Your task to perform on an android device: change your default location settings in chrome Image 0: 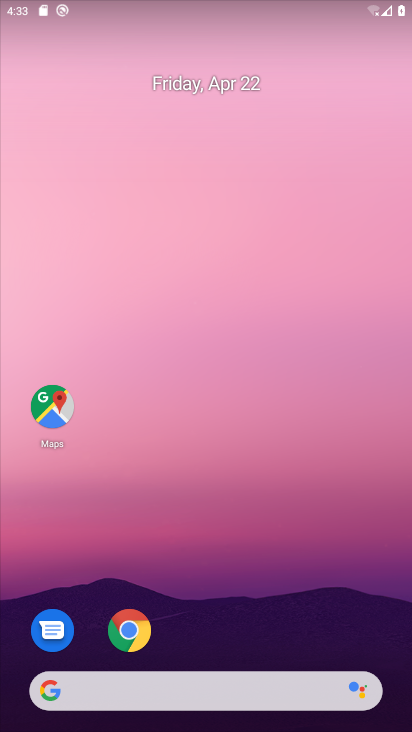
Step 0: click (133, 633)
Your task to perform on an android device: change your default location settings in chrome Image 1: 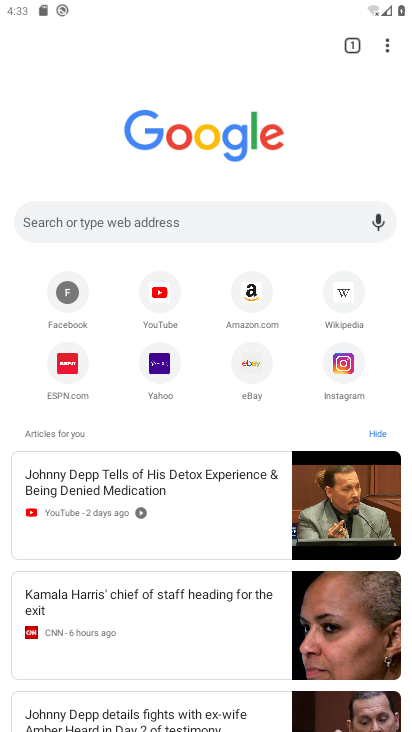
Step 1: click (389, 45)
Your task to perform on an android device: change your default location settings in chrome Image 2: 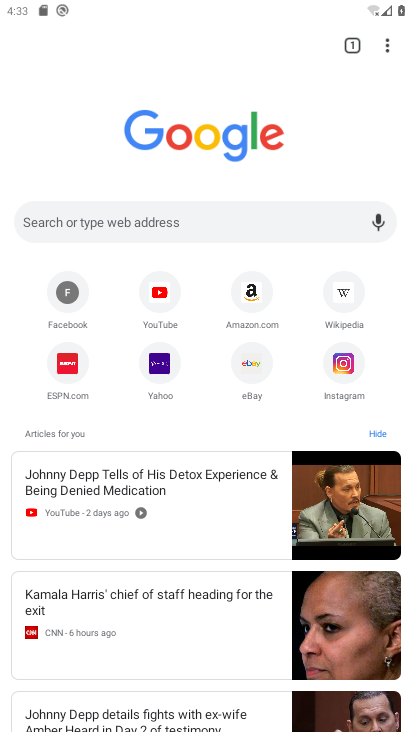
Step 2: click (389, 45)
Your task to perform on an android device: change your default location settings in chrome Image 3: 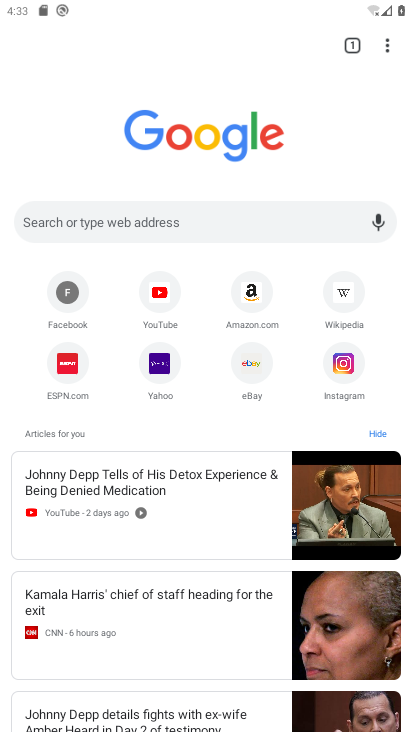
Step 3: click (388, 45)
Your task to perform on an android device: change your default location settings in chrome Image 4: 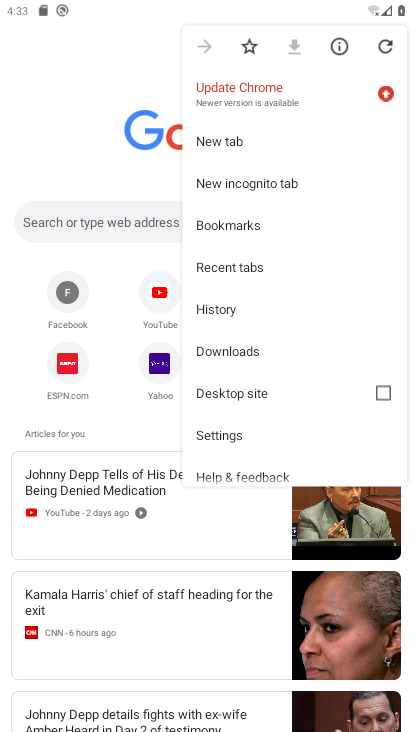
Step 4: click (226, 427)
Your task to perform on an android device: change your default location settings in chrome Image 5: 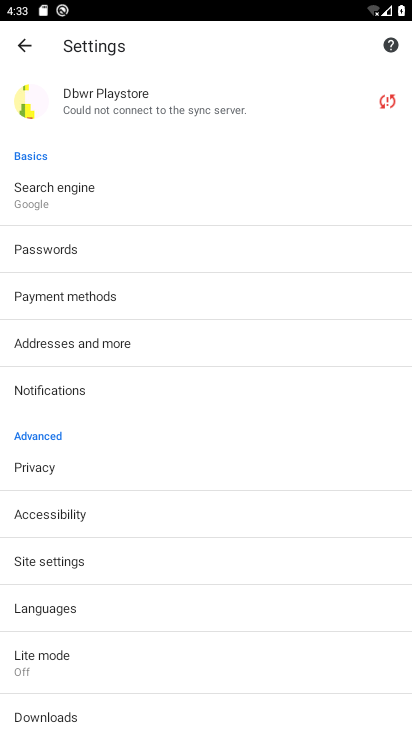
Step 5: click (89, 560)
Your task to perform on an android device: change your default location settings in chrome Image 6: 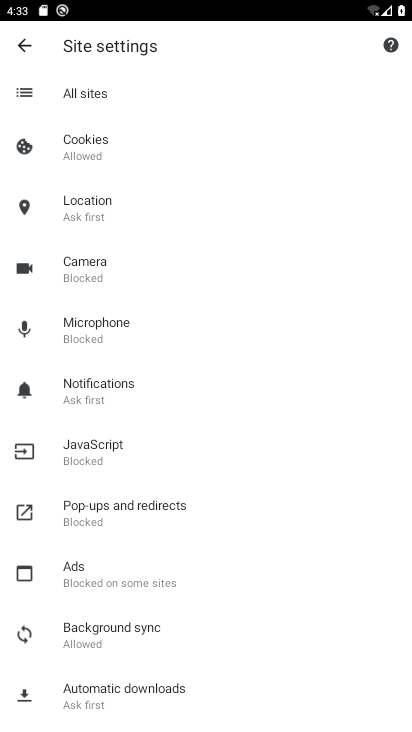
Step 6: click (173, 198)
Your task to perform on an android device: change your default location settings in chrome Image 7: 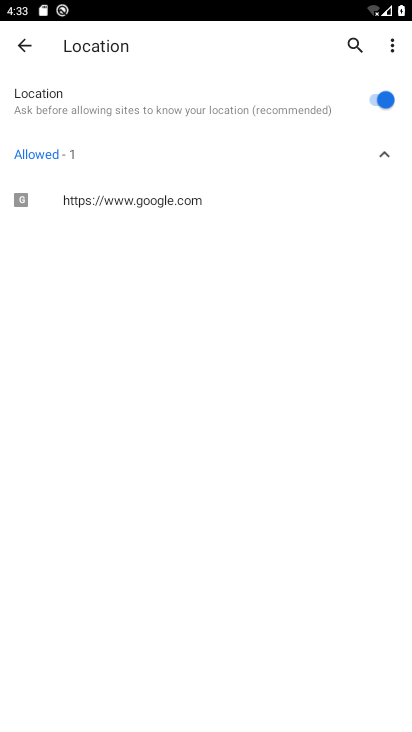
Step 7: click (374, 103)
Your task to perform on an android device: change your default location settings in chrome Image 8: 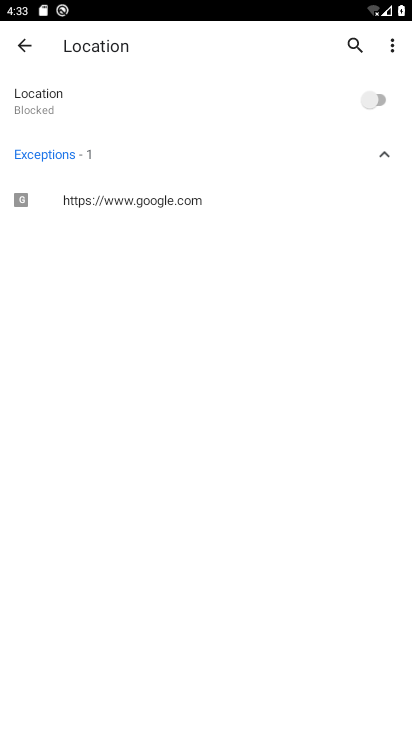
Step 8: task complete